Your task to perform on an android device: Go to eBay Image 0: 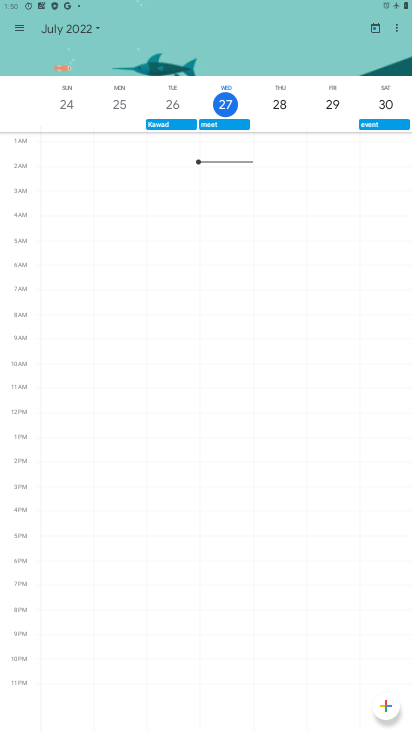
Step 0: press home button
Your task to perform on an android device: Go to eBay Image 1: 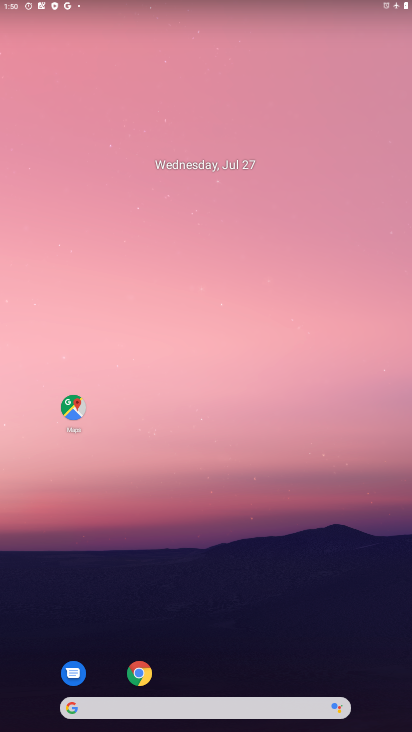
Step 1: click (140, 711)
Your task to perform on an android device: Go to eBay Image 2: 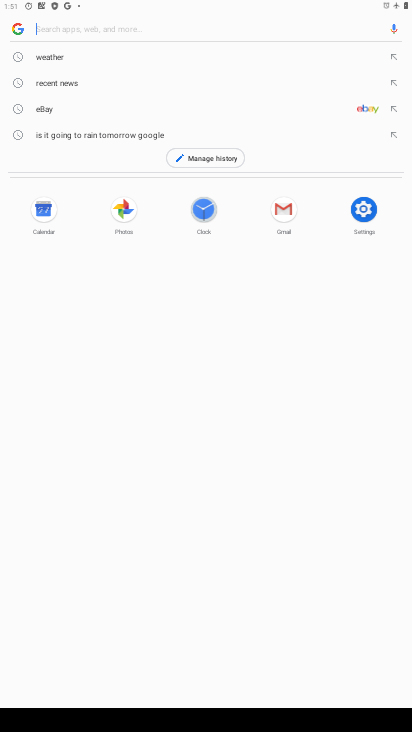
Step 2: click (52, 116)
Your task to perform on an android device: Go to eBay Image 3: 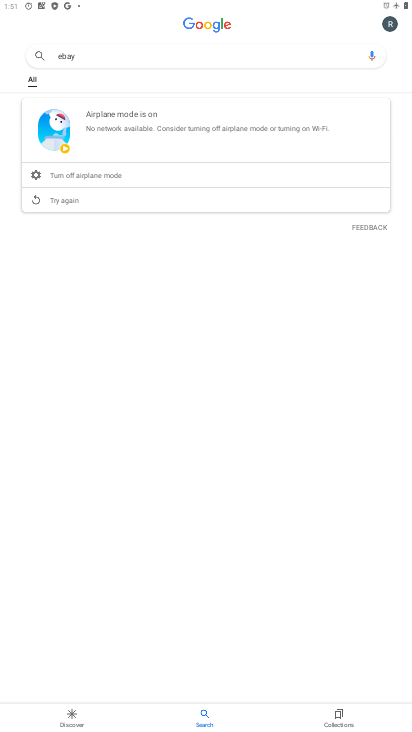
Step 3: task complete